Your task to perform on an android device: Go to battery settings Image 0: 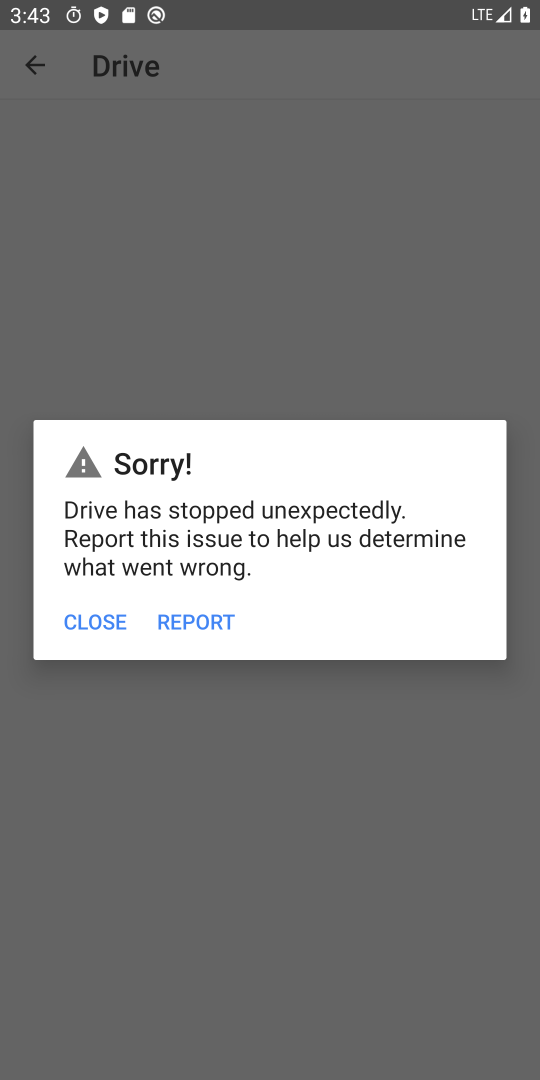
Step 0: press home button
Your task to perform on an android device: Go to battery settings Image 1: 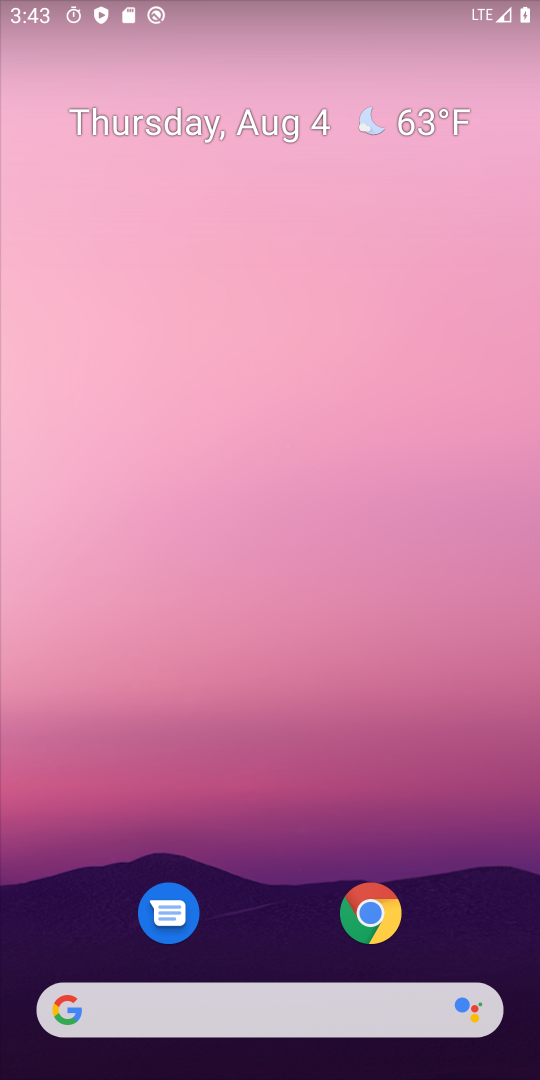
Step 1: drag from (263, 1037) to (279, 95)
Your task to perform on an android device: Go to battery settings Image 2: 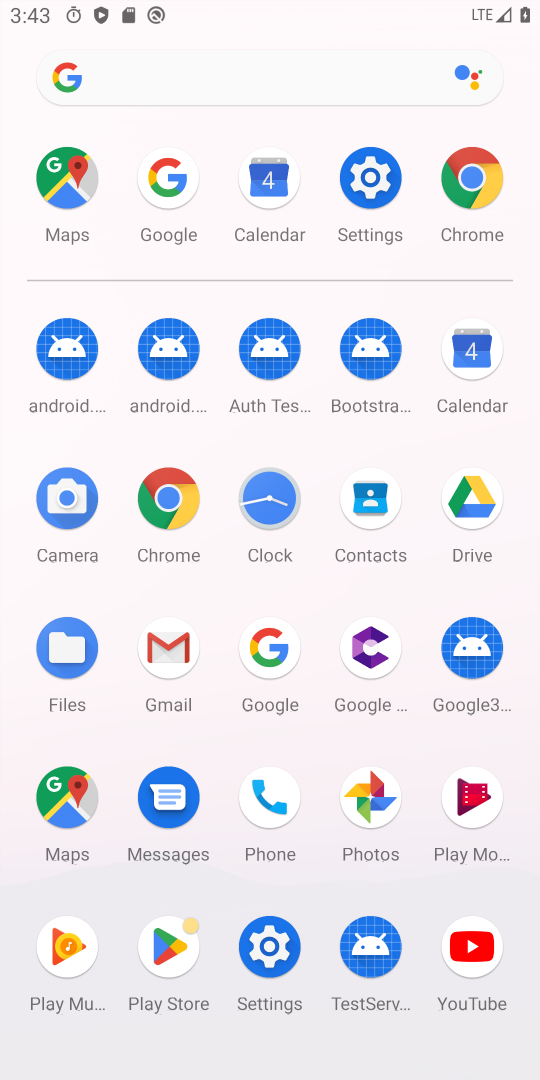
Step 2: click (376, 177)
Your task to perform on an android device: Go to battery settings Image 3: 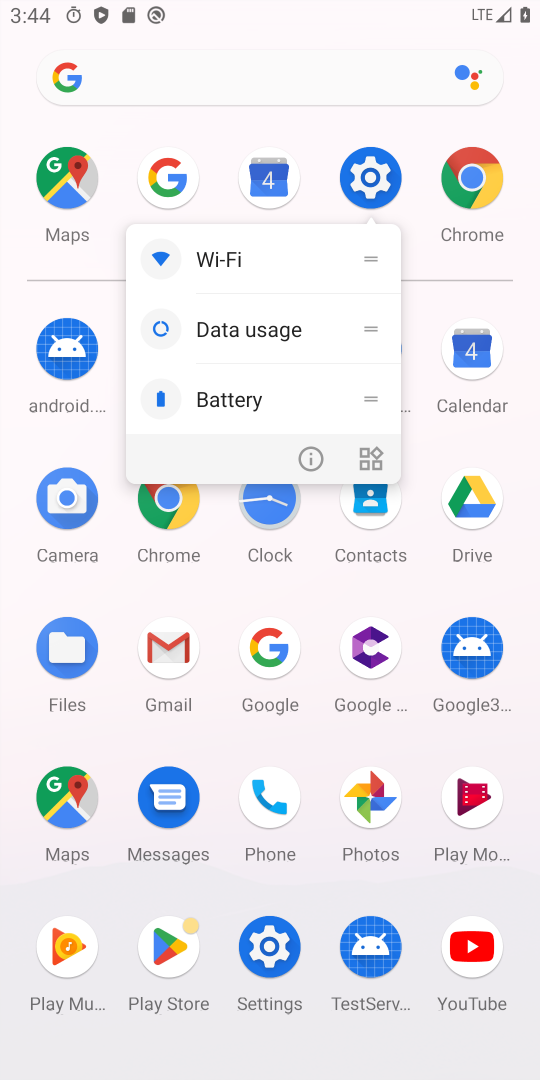
Step 3: click (229, 398)
Your task to perform on an android device: Go to battery settings Image 4: 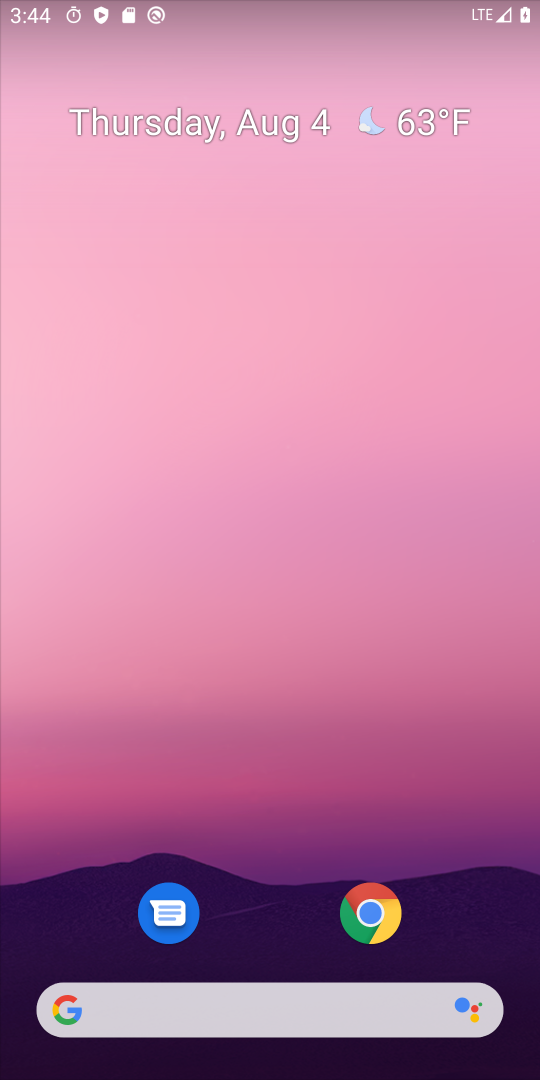
Step 4: drag from (284, 1009) to (238, 144)
Your task to perform on an android device: Go to battery settings Image 5: 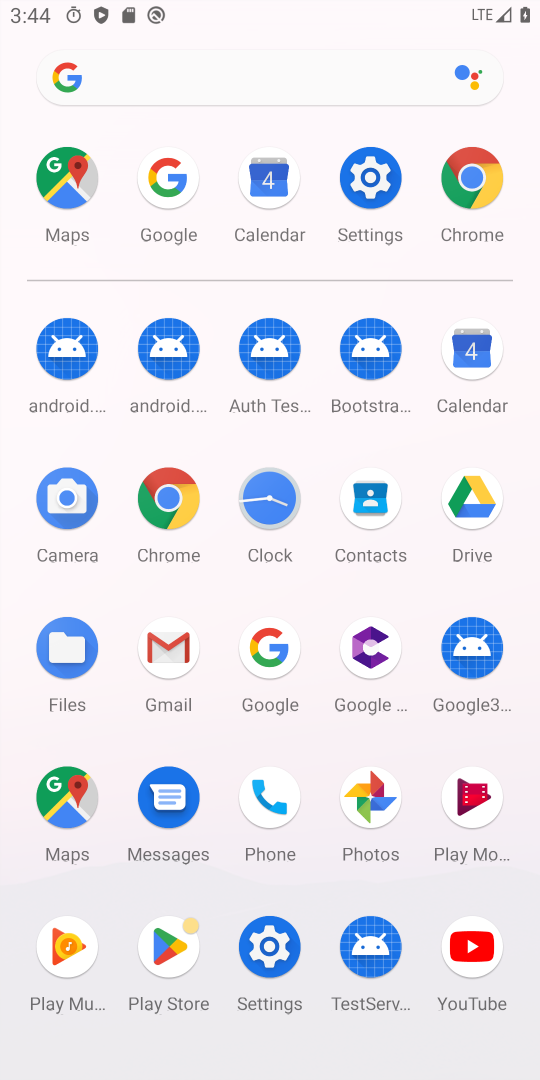
Step 5: click (377, 161)
Your task to perform on an android device: Go to battery settings Image 6: 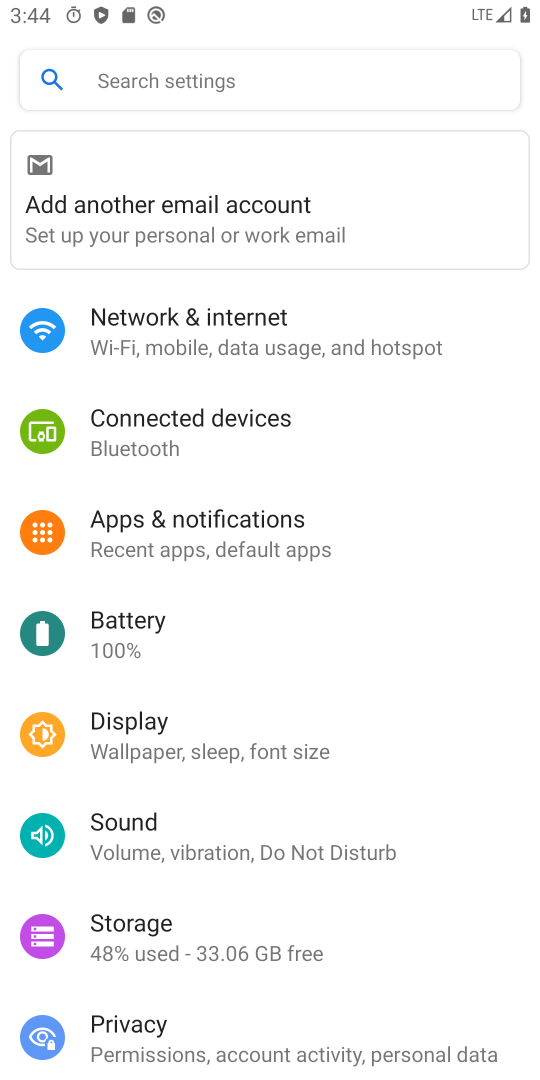
Step 6: click (157, 627)
Your task to perform on an android device: Go to battery settings Image 7: 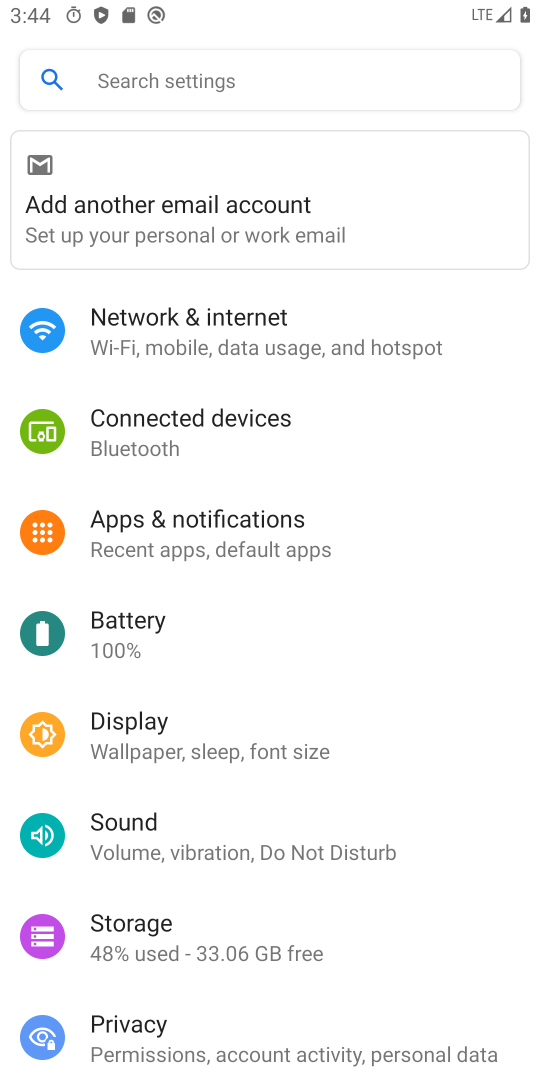
Step 7: click (157, 627)
Your task to perform on an android device: Go to battery settings Image 8: 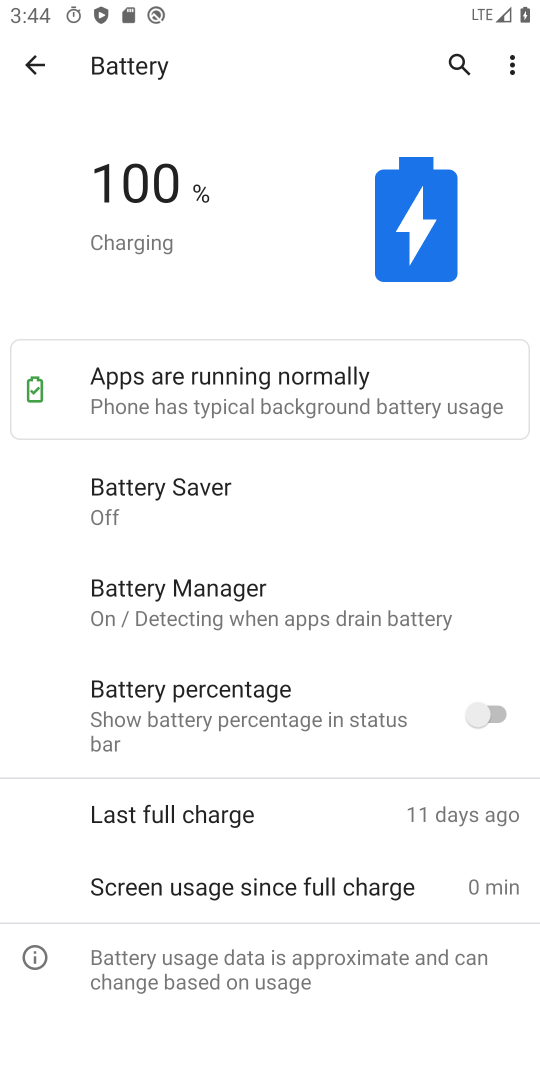
Step 8: task complete